Your task to perform on an android device: Open Google Maps Image 0: 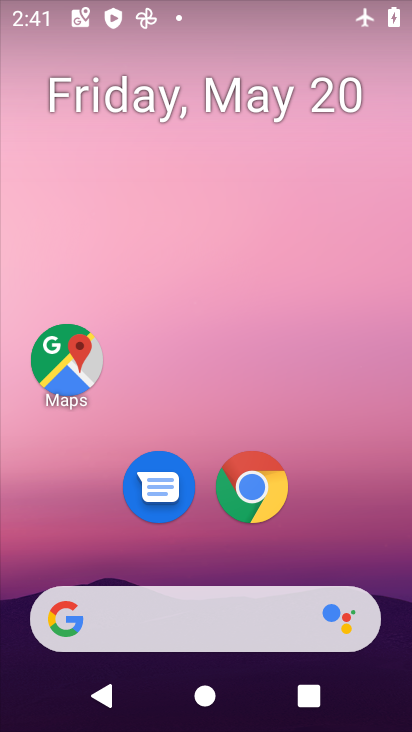
Step 0: drag from (373, 477) to (369, 13)
Your task to perform on an android device: Open Google Maps Image 1: 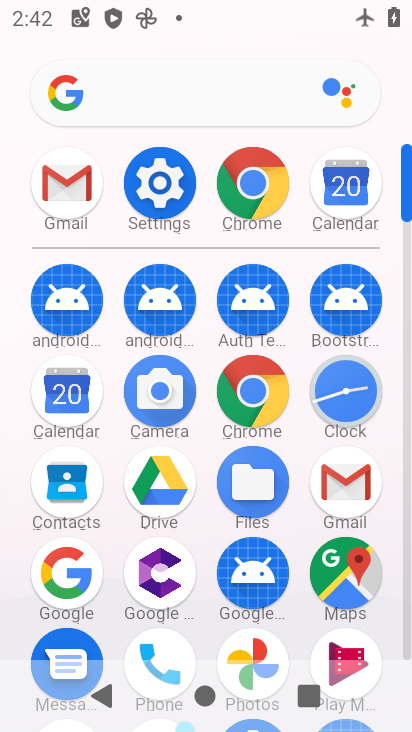
Step 1: click (342, 585)
Your task to perform on an android device: Open Google Maps Image 2: 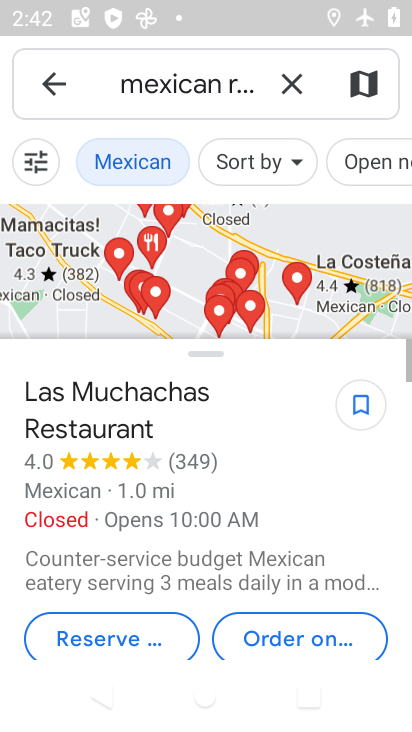
Step 2: task complete